Your task to perform on an android device: find photos in the google photos app Image 0: 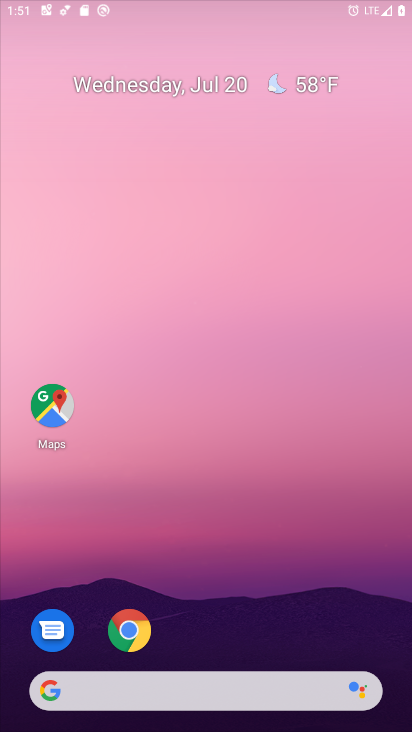
Step 0: press home button
Your task to perform on an android device: find photos in the google photos app Image 1: 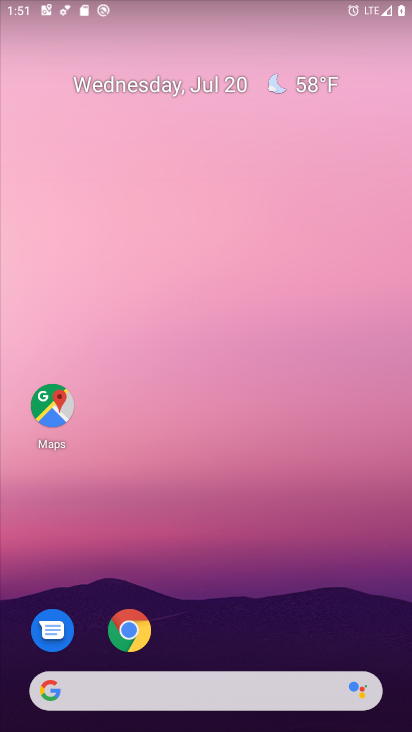
Step 1: drag from (160, 581) to (223, 136)
Your task to perform on an android device: find photos in the google photos app Image 2: 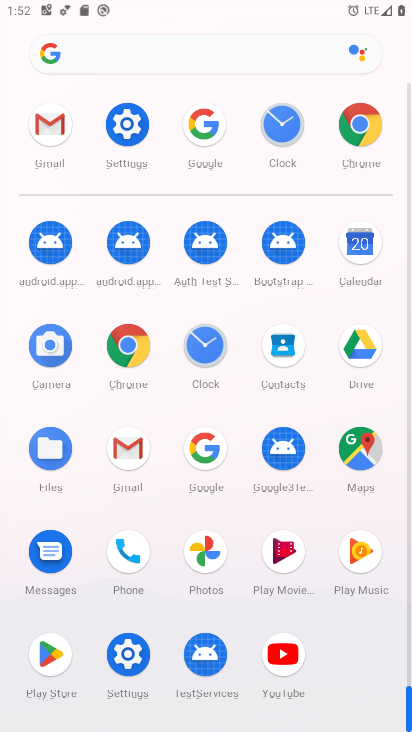
Step 2: click (212, 564)
Your task to perform on an android device: find photos in the google photos app Image 3: 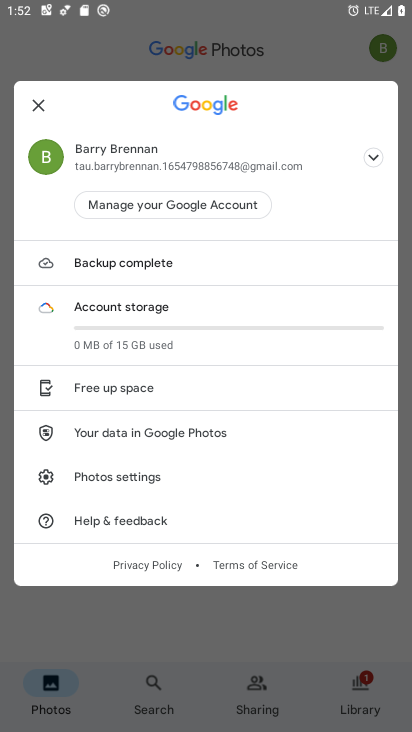
Step 3: click (60, 689)
Your task to perform on an android device: find photos in the google photos app Image 4: 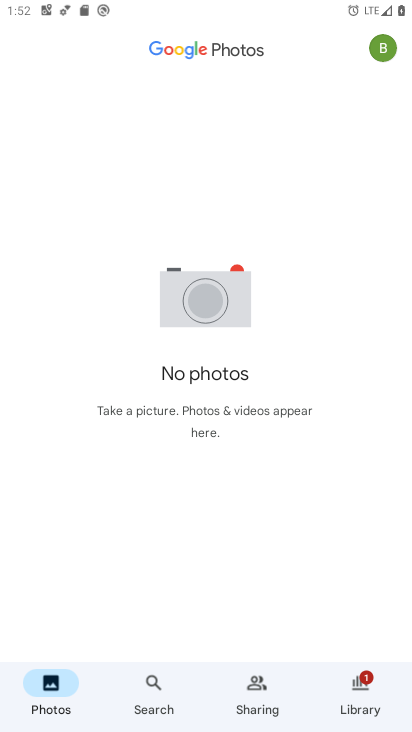
Step 4: task complete